Your task to perform on an android device: install app "Pluto TV - Live TV and Movies" Image 0: 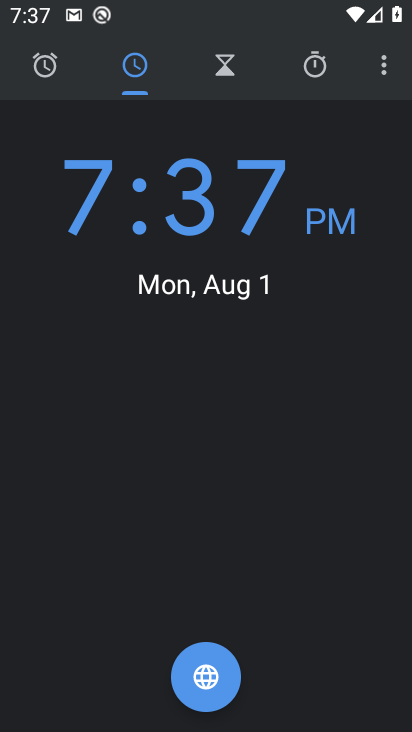
Step 0: press home button
Your task to perform on an android device: install app "Pluto TV - Live TV and Movies" Image 1: 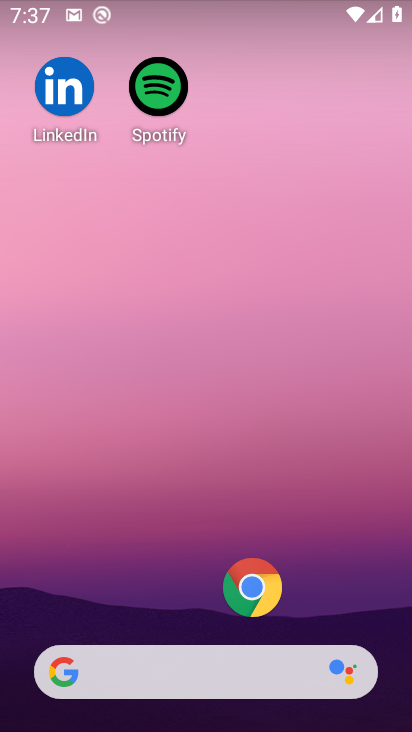
Step 1: drag from (144, 616) to (301, 0)
Your task to perform on an android device: install app "Pluto TV - Live TV and Movies" Image 2: 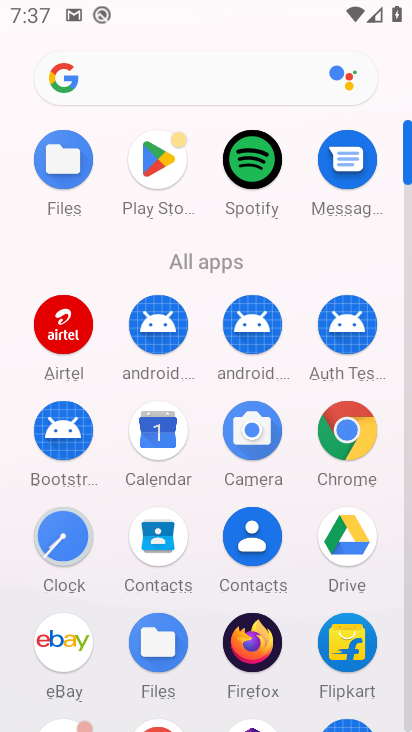
Step 2: click (162, 161)
Your task to perform on an android device: install app "Pluto TV - Live TV and Movies" Image 3: 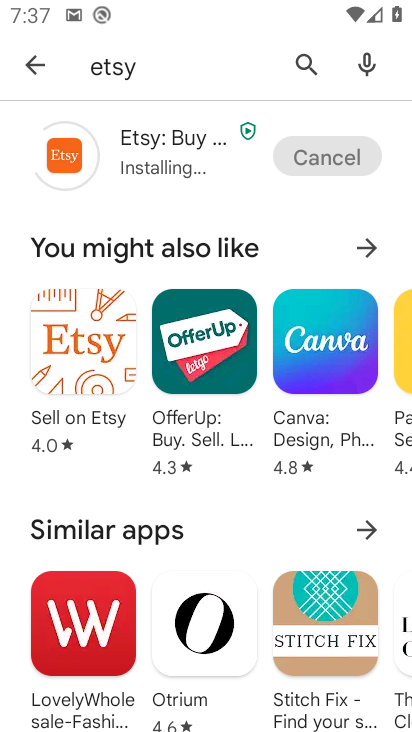
Step 3: click (275, 48)
Your task to perform on an android device: install app "Pluto TV - Live TV and Movies" Image 4: 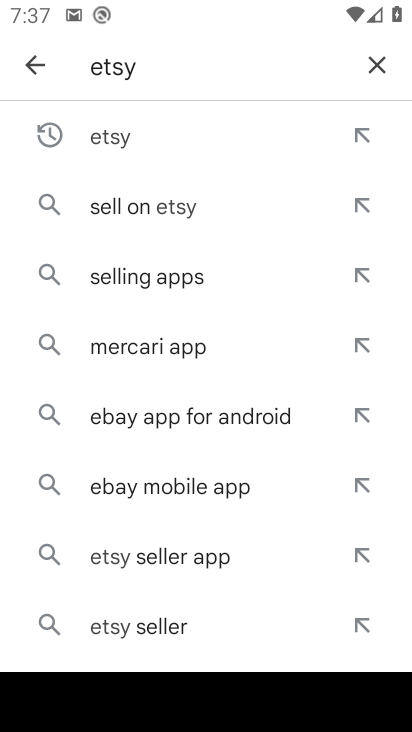
Step 4: click (356, 71)
Your task to perform on an android device: install app "Pluto TV - Live TV and Movies" Image 5: 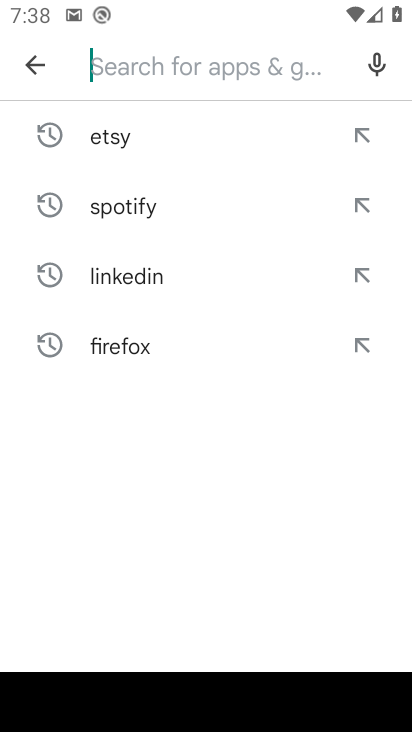
Step 5: type "plutotv"
Your task to perform on an android device: install app "Pluto TV - Live TV and Movies" Image 6: 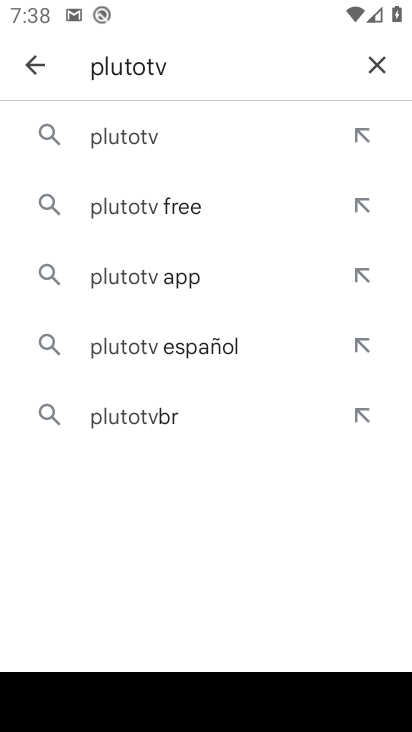
Step 6: click (229, 120)
Your task to perform on an android device: install app "Pluto TV - Live TV and Movies" Image 7: 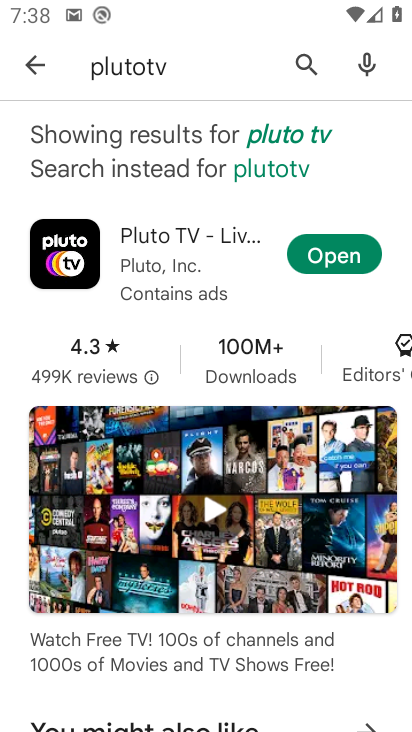
Step 7: click (335, 244)
Your task to perform on an android device: install app "Pluto TV - Live TV and Movies" Image 8: 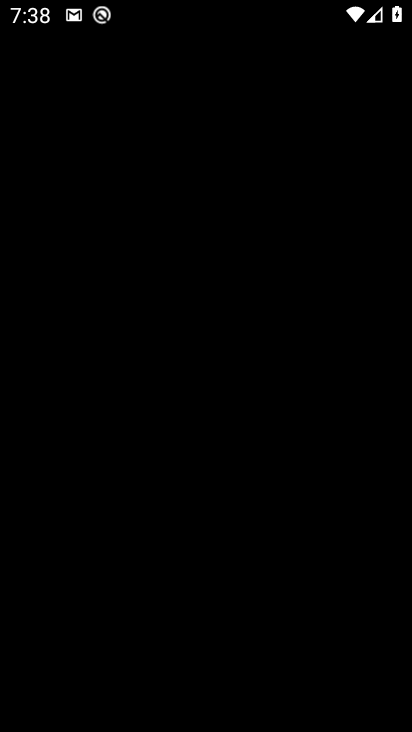
Step 8: task complete